Your task to perform on an android device: Find coffee shops on Maps Image 0: 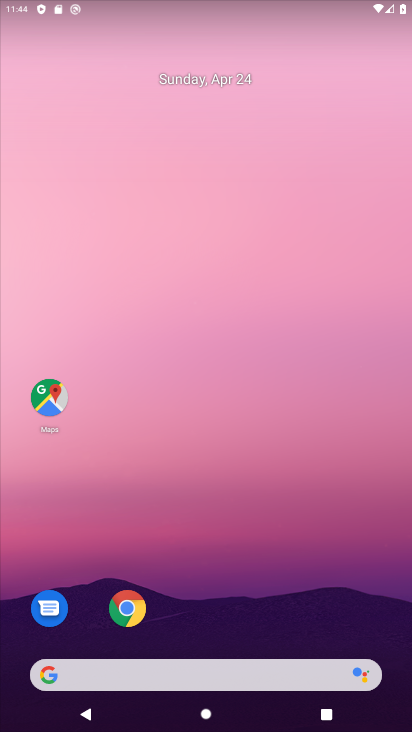
Step 0: drag from (222, 715) to (211, 104)
Your task to perform on an android device: Find coffee shops on Maps Image 1: 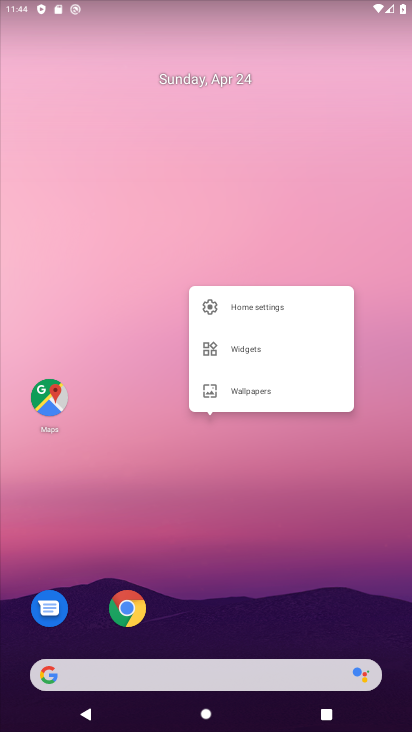
Step 1: click (229, 241)
Your task to perform on an android device: Find coffee shops on Maps Image 2: 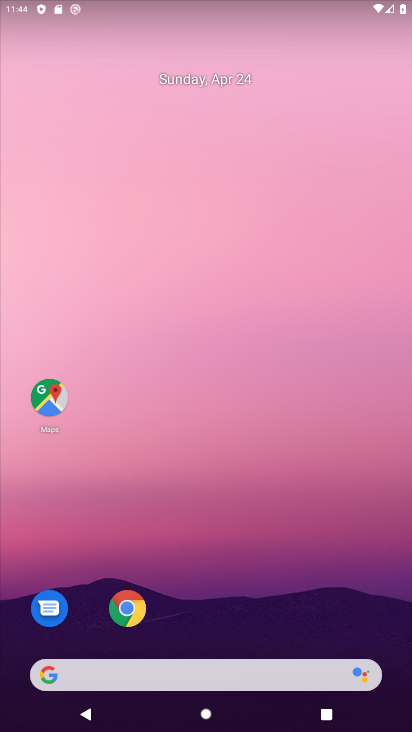
Step 2: drag from (230, 729) to (195, 83)
Your task to perform on an android device: Find coffee shops on Maps Image 3: 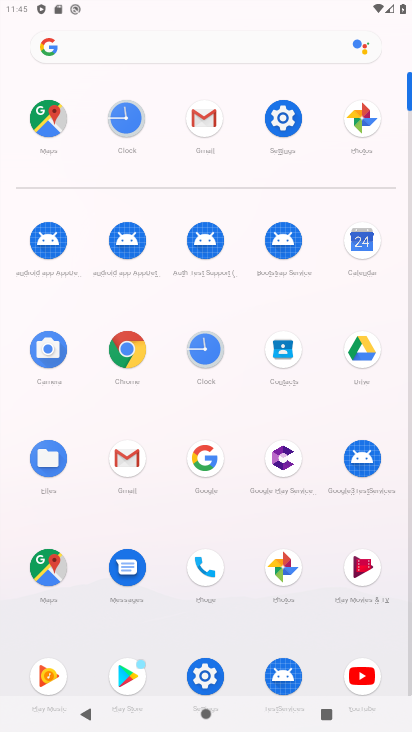
Step 3: click (46, 566)
Your task to perform on an android device: Find coffee shops on Maps Image 4: 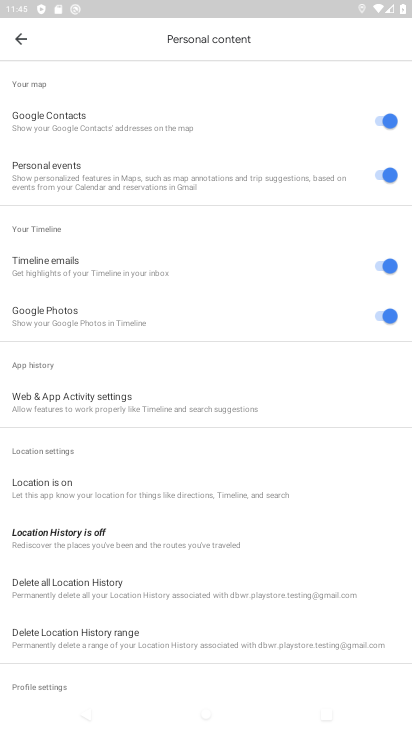
Step 4: click (21, 37)
Your task to perform on an android device: Find coffee shops on Maps Image 5: 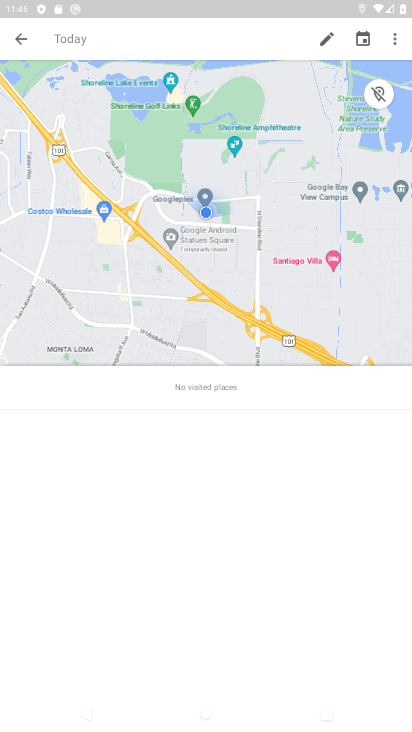
Step 5: click (14, 35)
Your task to perform on an android device: Find coffee shops on Maps Image 6: 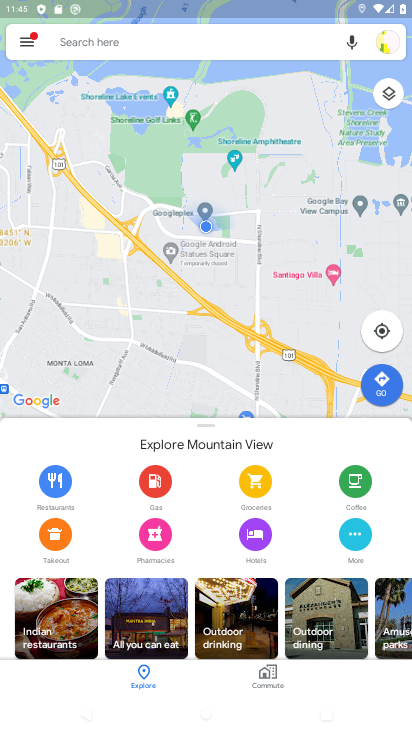
Step 6: click (144, 46)
Your task to perform on an android device: Find coffee shops on Maps Image 7: 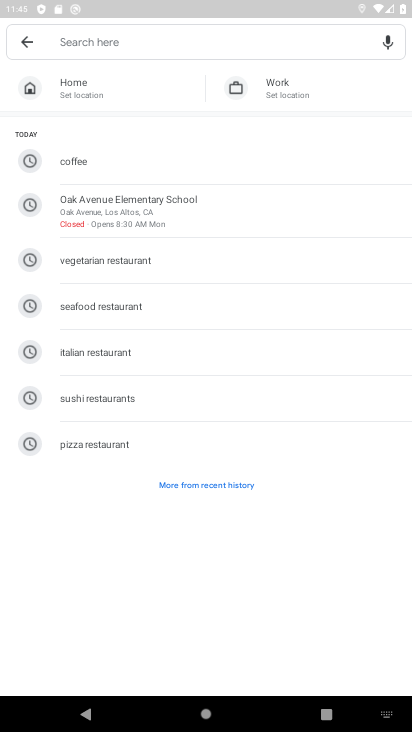
Step 7: type "coffee shops"
Your task to perform on an android device: Find coffee shops on Maps Image 8: 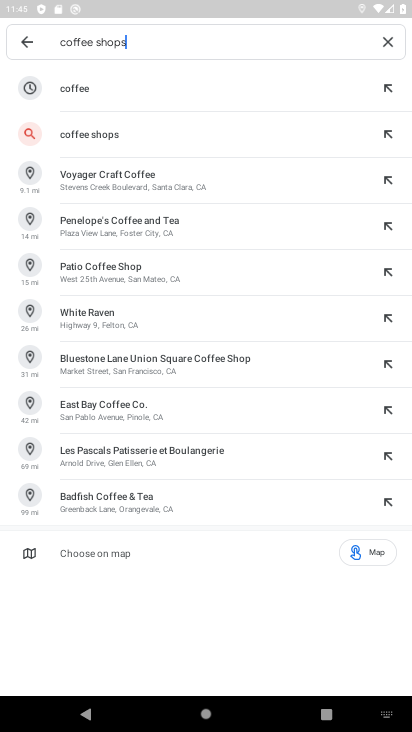
Step 8: click (97, 134)
Your task to perform on an android device: Find coffee shops on Maps Image 9: 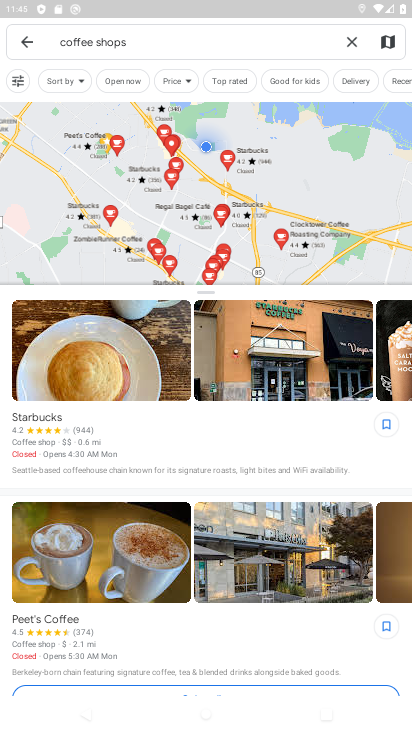
Step 9: task complete